Your task to perform on an android device: Show me popular videos on Youtube Image 0: 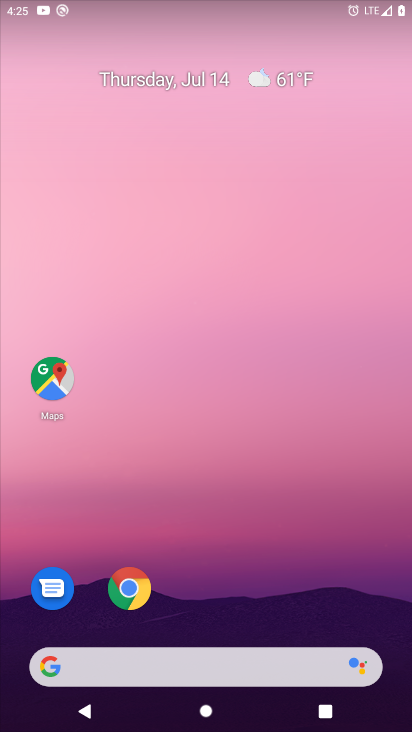
Step 0: press home button
Your task to perform on an android device: Show me popular videos on Youtube Image 1: 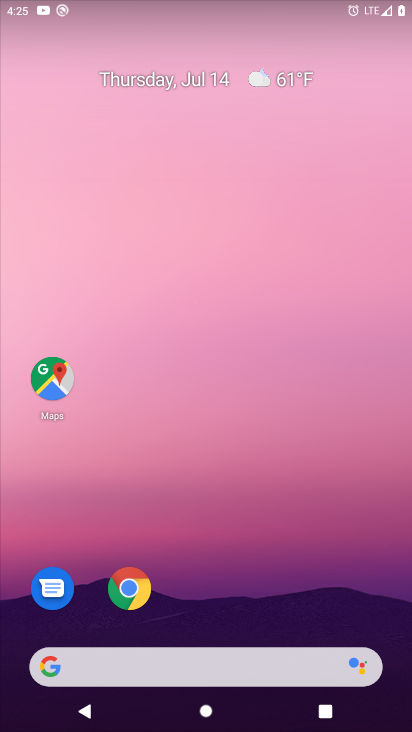
Step 1: drag from (221, 623) to (225, 136)
Your task to perform on an android device: Show me popular videos on Youtube Image 2: 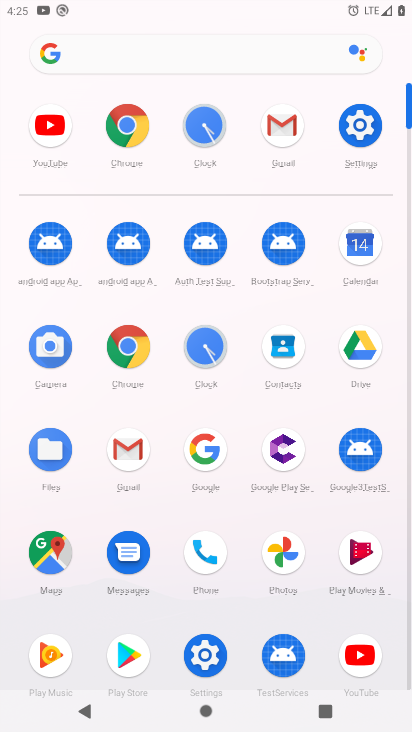
Step 2: click (364, 660)
Your task to perform on an android device: Show me popular videos on Youtube Image 3: 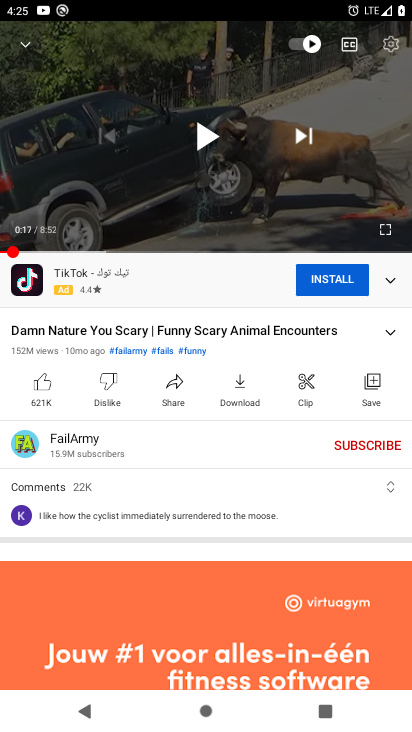
Step 3: press back button
Your task to perform on an android device: Show me popular videos on Youtube Image 4: 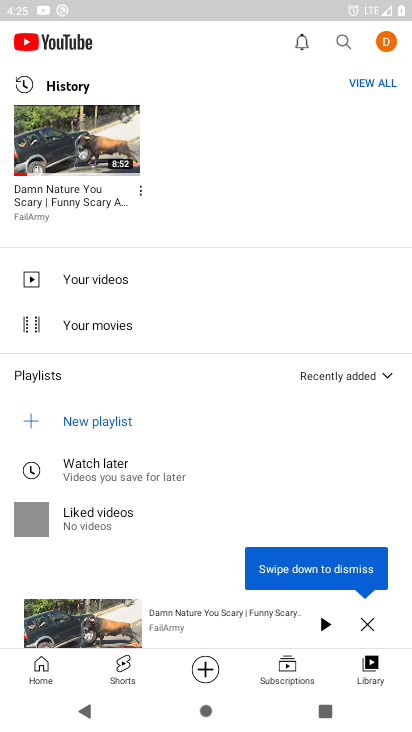
Step 4: click (41, 667)
Your task to perform on an android device: Show me popular videos on Youtube Image 5: 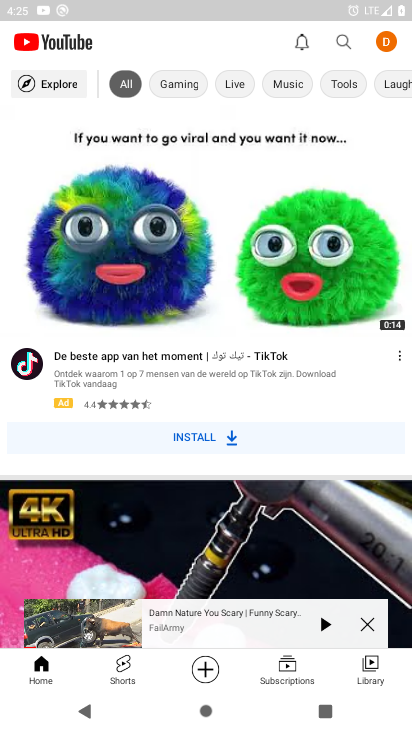
Step 5: click (54, 83)
Your task to perform on an android device: Show me popular videos on Youtube Image 6: 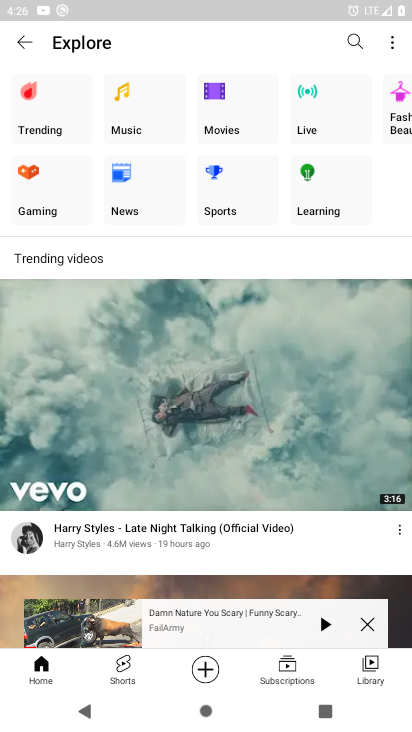
Step 6: click (33, 131)
Your task to perform on an android device: Show me popular videos on Youtube Image 7: 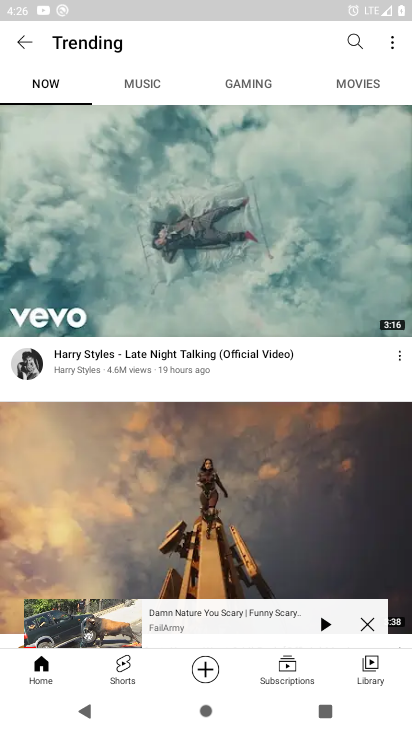
Step 7: task complete